Your task to perform on an android device: Search for Mexican restaurants on Maps Image 0: 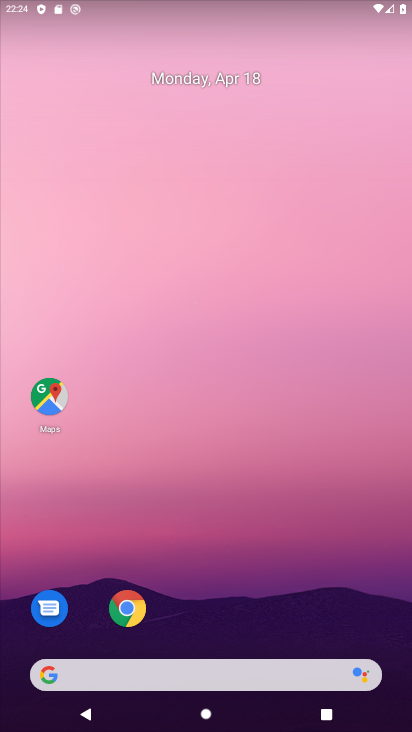
Step 0: click (232, 141)
Your task to perform on an android device: Search for Mexican restaurants on Maps Image 1: 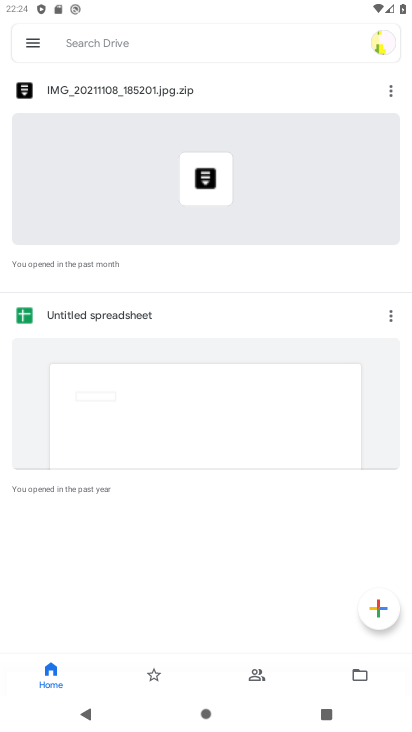
Step 1: press home button
Your task to perform on an android device: Search for Mexican restaurants on Maps Image 2: 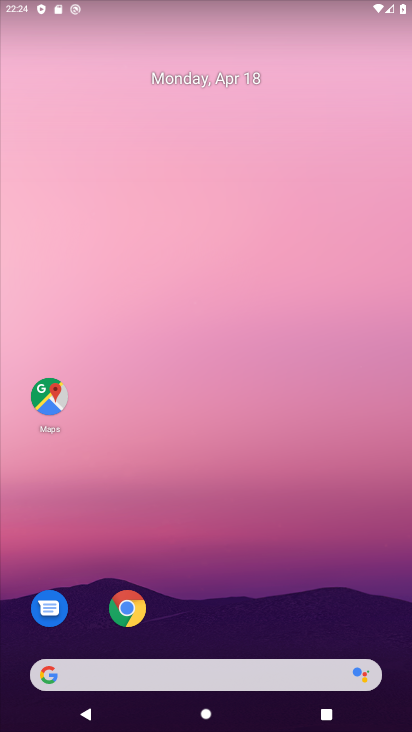
Step 2: click (44, 390)
Your task to perform on an android device: Search for Mexican restaurants on Maps Image 3: 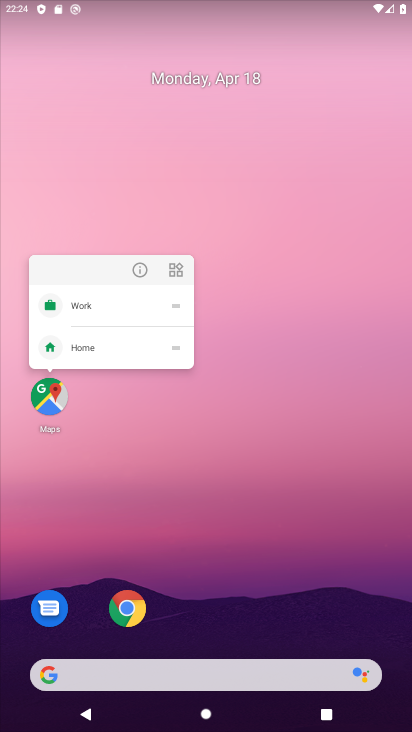
Step 3: click (50, 394)
Your task to perform on an android device: Search for Mexican restaurants on Maps Image 4: 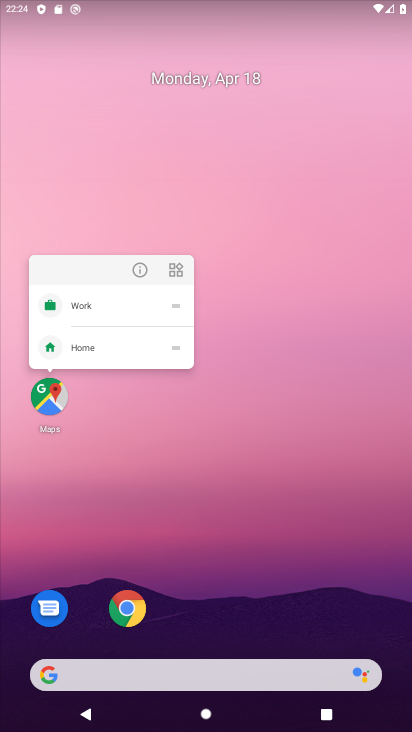
Step 4: click (165, 425)
Your task to perform on an android device: Search for Mexican restaurants on Maps Image 5: 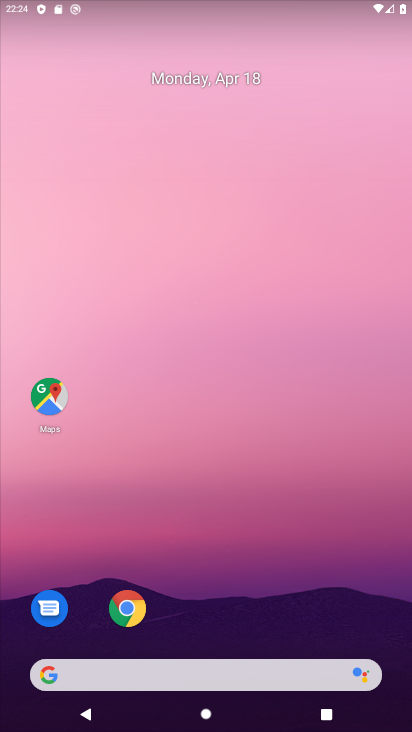
Step 5: click (45, 398)
Your task to perform on an android device: Search for Mexican restaurants on Maps Image 6: 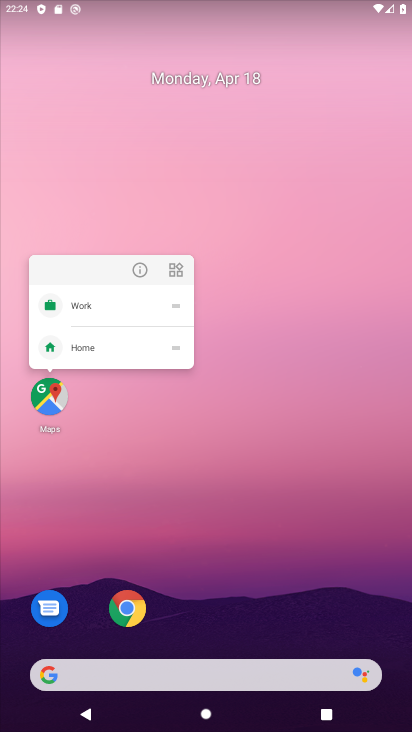
Step 6: click (171, 478)
Your task to perform on an android device: Search for Mexican restaurants on Maps Image 7: 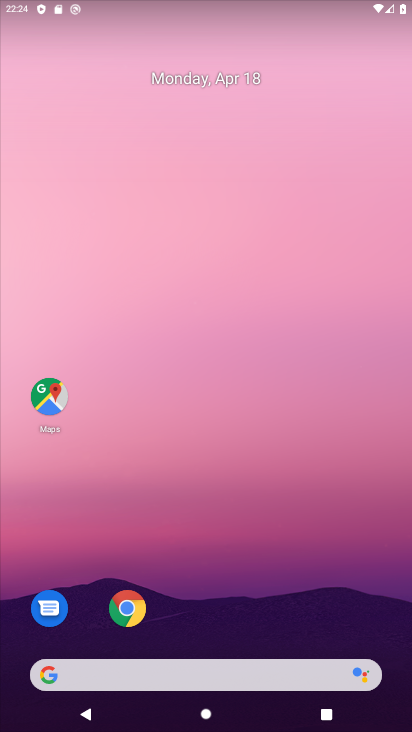
Step 7: click (48, 406)
Your task to perform on an android device: Search for Mexican restaurants on Maps Image 8: 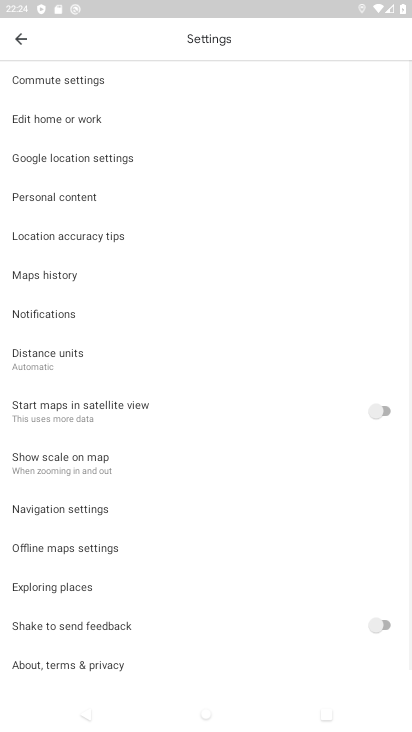
Step 8: press back button
Your task to perform on an android device: Search for Mexican restaurants on Maps Image 9: 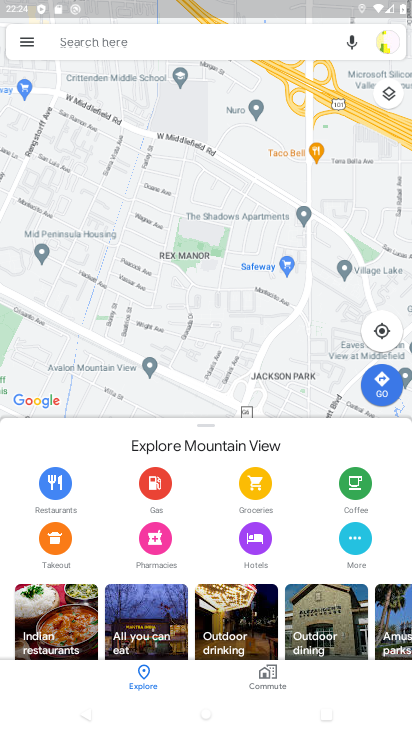
Step 9: click (240, 46)
Your task to perform on an android device: Search for Mexican restaurants on Maps Image 10: 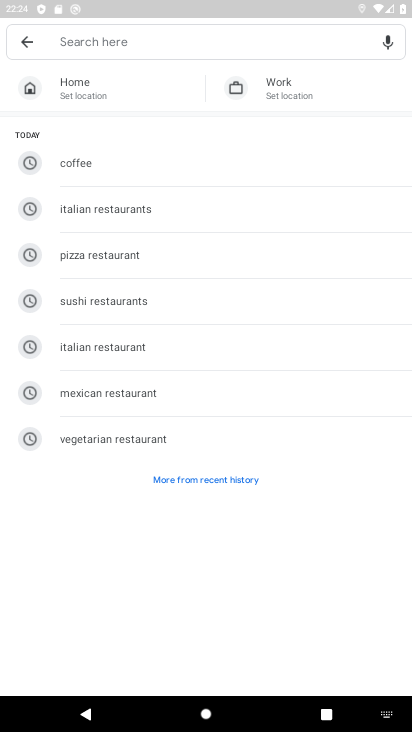
Step 10: click (95, 391)
Your task to perform on an android device: Search for Mexican restaurants on Maps Image 11: 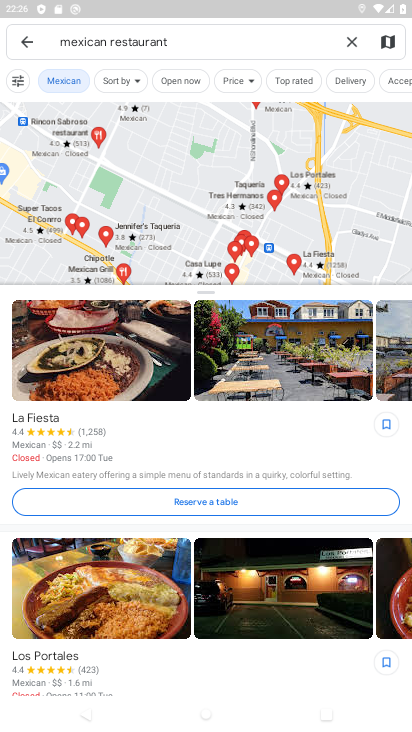
Step 11: task complete